Your task to perform on an android device: open device folders in google photos Image 0: 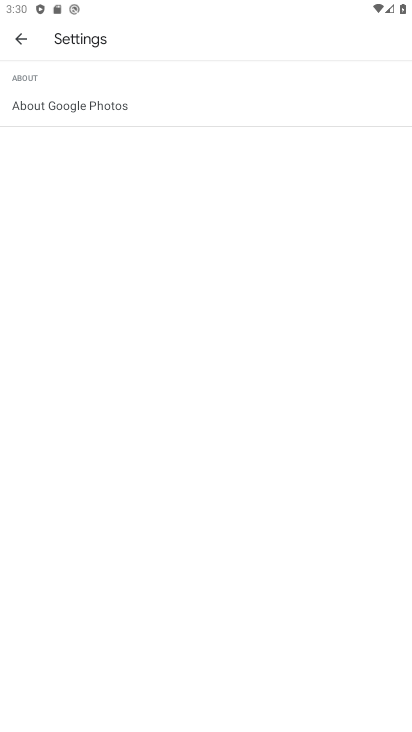
Step 0: drag from (173, 675) to (253, 124)
Your task to perform on an android device: open device folders in google photos Image 1: 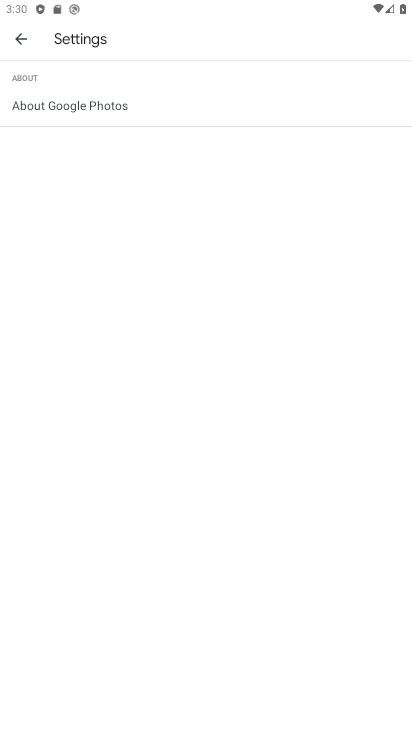
Step 1: press home button
Your task to perform on an android device: open device folders in google photos Image 2: 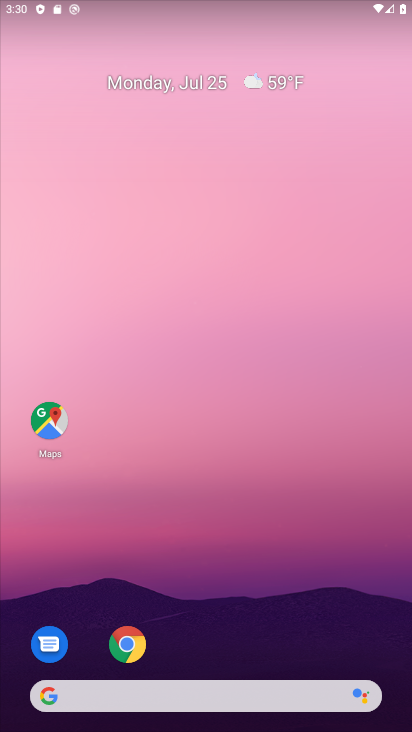
Step 2: drag from (185, 656) to (212, 123)
Your task to perform on an android device: open device folders in google photos Image 3: 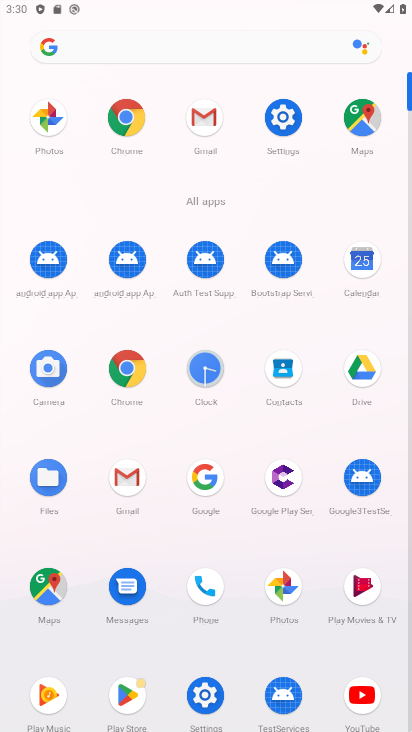
Step 3: click (273, 587)
Your task to perform on an android device: open device folders in google photos Image 4: 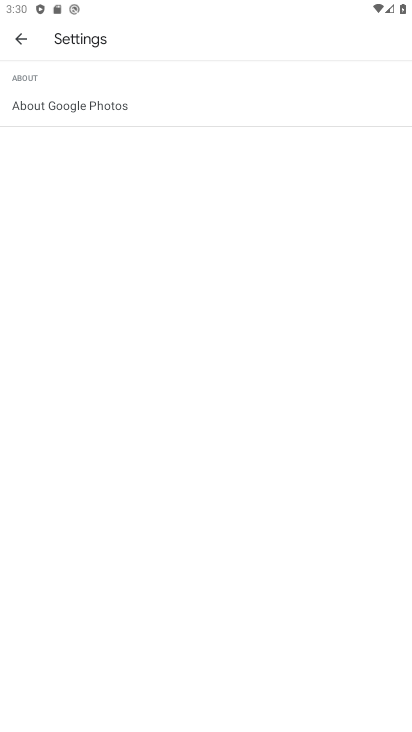
Step 4: click (19, 42)
Your task to perform on an android device: open device folders in google photos Image 5: 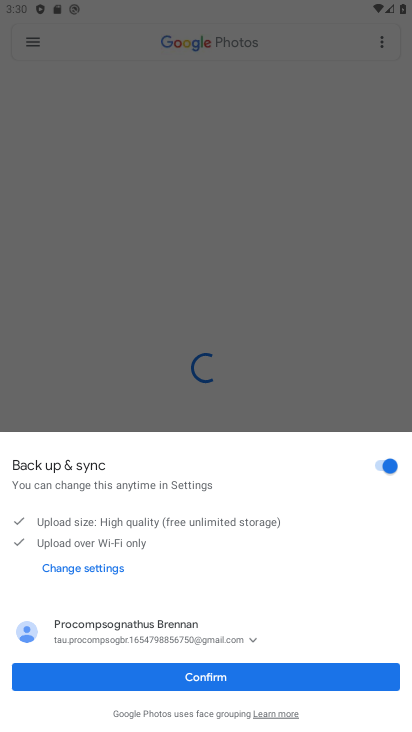
Step 5: click (36, 40)
Your task to perform on an android device: open device folders in google photos Image 6: 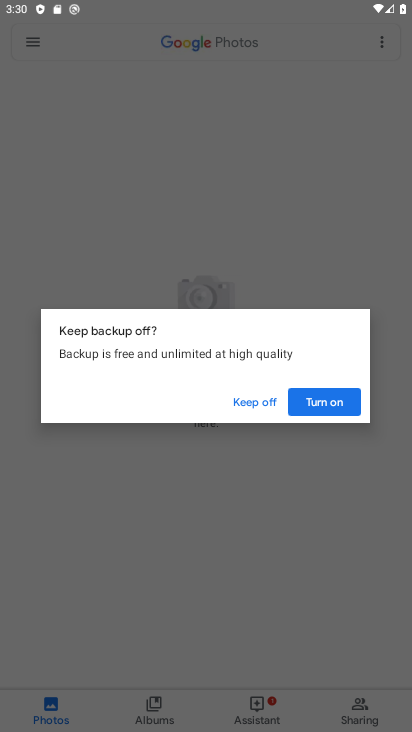
Step 6: click (308, 402)
Your task to perform on an android device: open device folders in google photos Image 7: 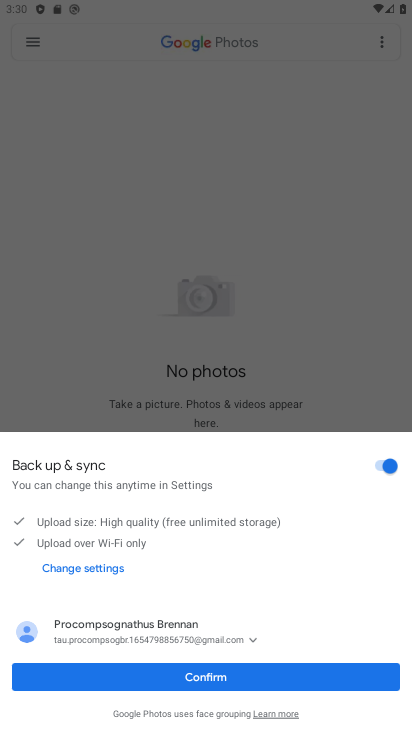
Step 7: click (190, 682)
Your task to perform on an android device: open device folders in google photos Image 8: 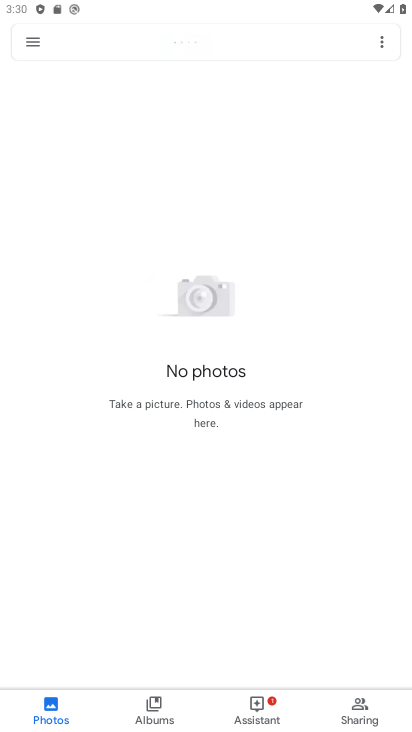
Step 8: click (38, 36)
Your task to perform on an android device: open device folders in google photos Image 9: 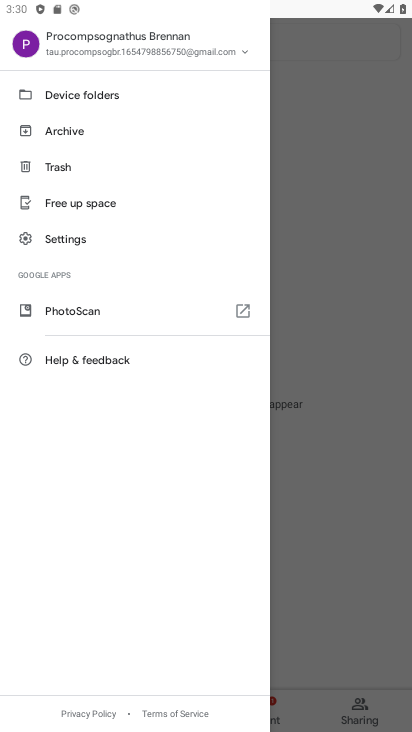
Step 9: click (77, 97)
Your task to perform on an android device: open device folders in google photos Image 10: 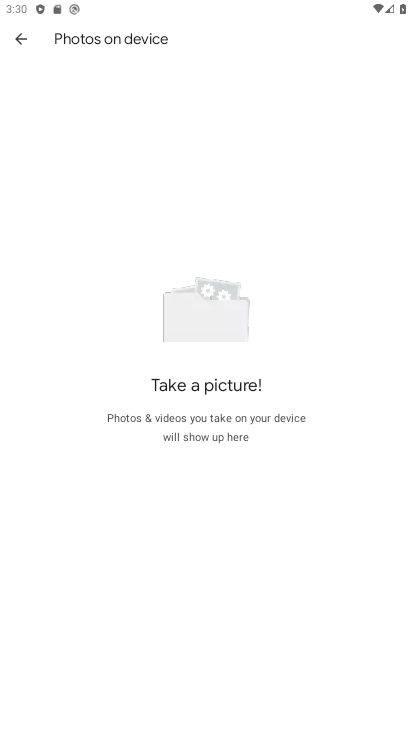
Step 10: task complete